Your task to perform on an android device: toggle improve location accuracy Image 0: 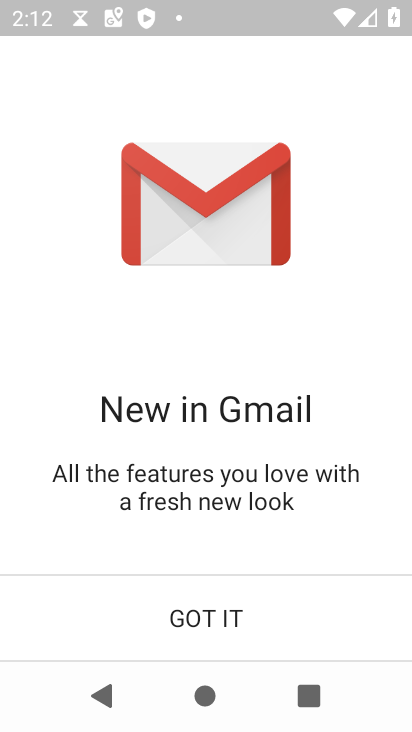
Step 0: press home button
Your task to perform on an android device: toggle improve location accuracy Image 1: 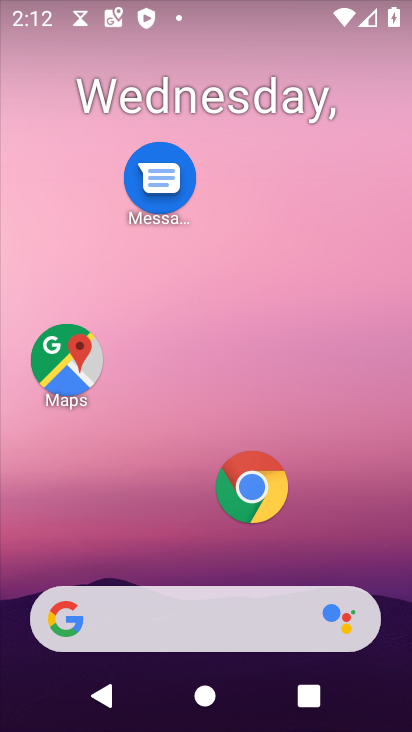
Step 1: drag from (194, 554) to (238, 148)
Your task to perform on an android device: toggle improve location accuracy Image 2: 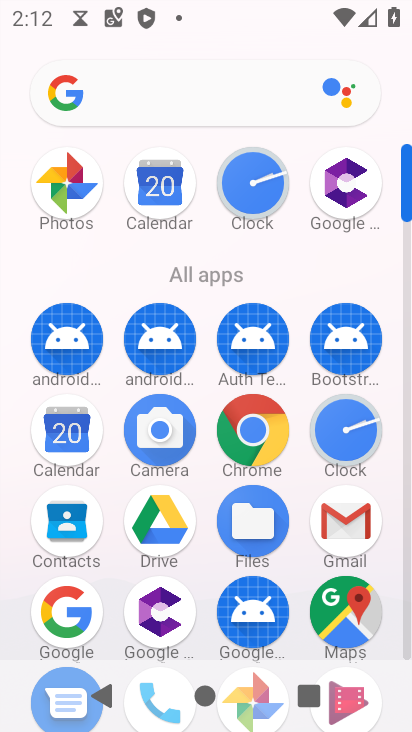
Step 2: drag from (200, 473) to (213, 154)
Your task to perform on an android device: toggle improve location accuracy Image 3: 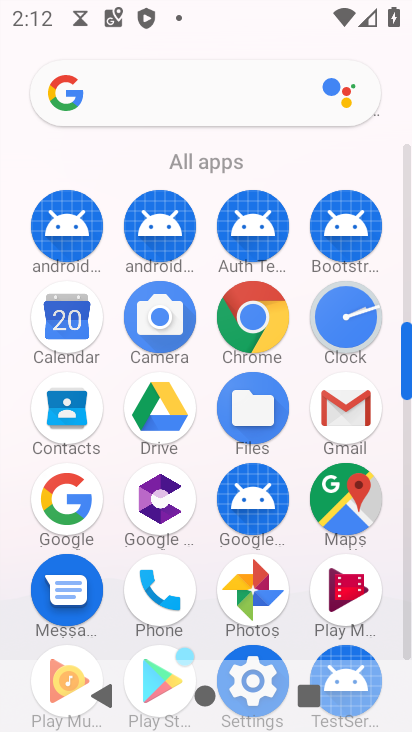
Step 3: drag from (201, 535) to (233, 232)
Your task to perform on an android device: toggle improve location accuracy Image 4: 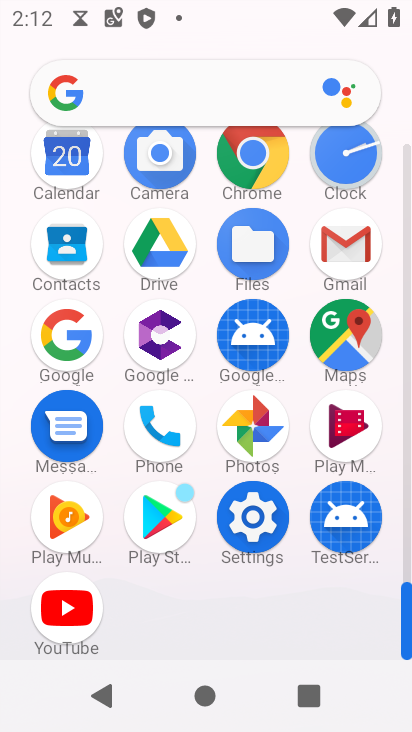
Step 4: click (246, 503)
Your task to perform on an android device: toggle improve location accuracy Image 5: 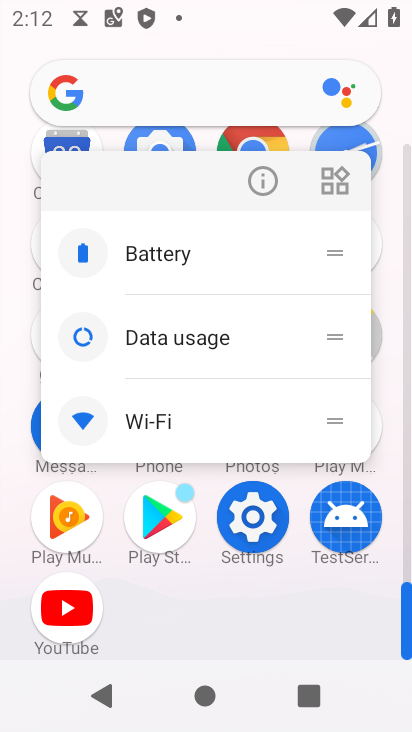
Step 5: click (248, 505)
Your task to perform on an android device: toggle improve location accuracy Image 6: 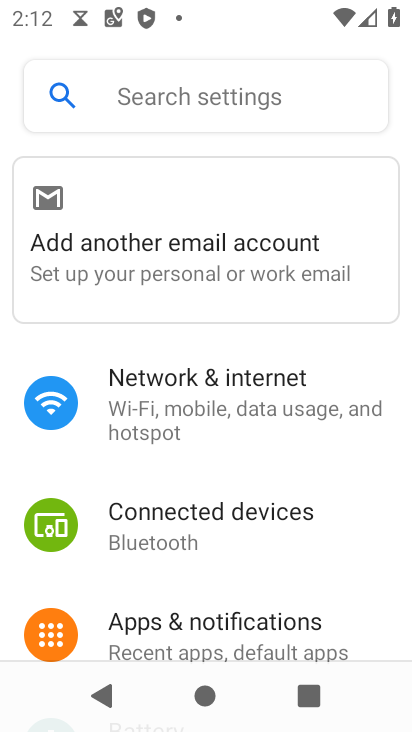
Step 6: drag from (230, 580) to (270, 257)
Your task to perform on an android device: toggle improve location accuracy Image 7: 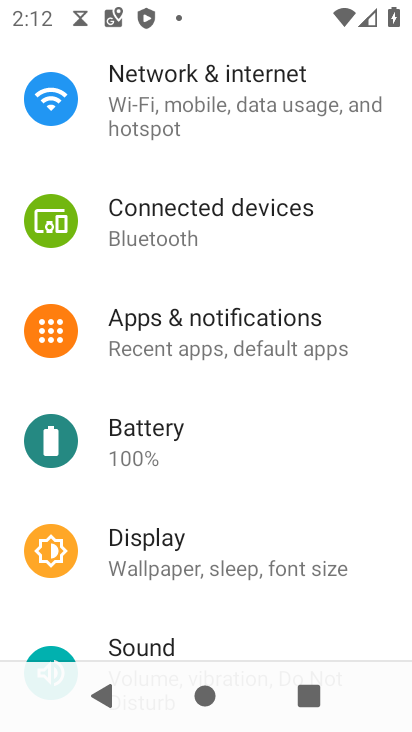
Step 7: drag from (242, 533) to (242, 266)
Your task to perform on an android device: toggle improve location accuracy Image 8: 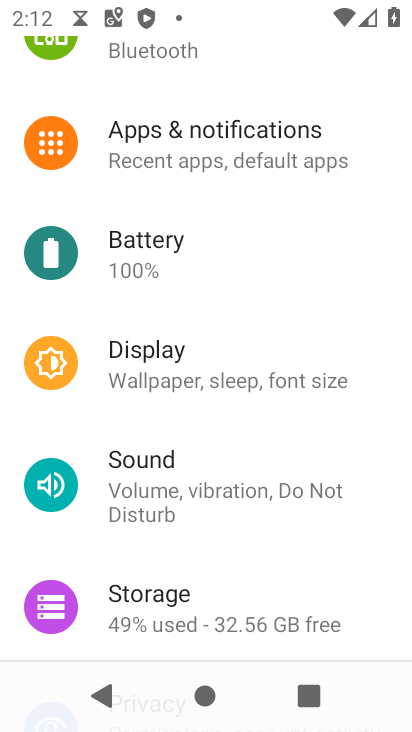
Step 8: drag from (204, 578) to (203, 267)
Your task to perform on an android device: toggle improve location accuracy Image 9: 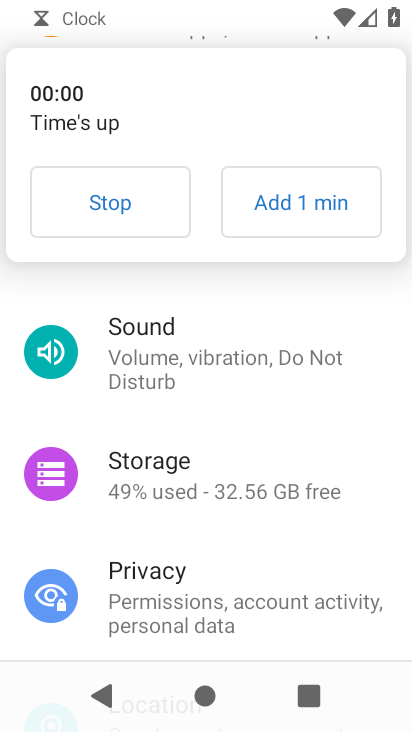
Step 9: drag from (197, 532) to (212, 261)
Your task to perform on an android device: toggle improve location accuracy Image 10: 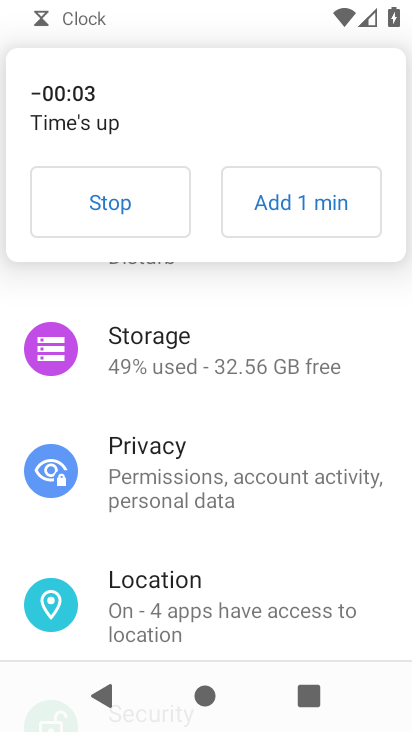
Step 10: click (176, 607)
Your task to perform on an android device: toggle improve location accuracy Image 11: 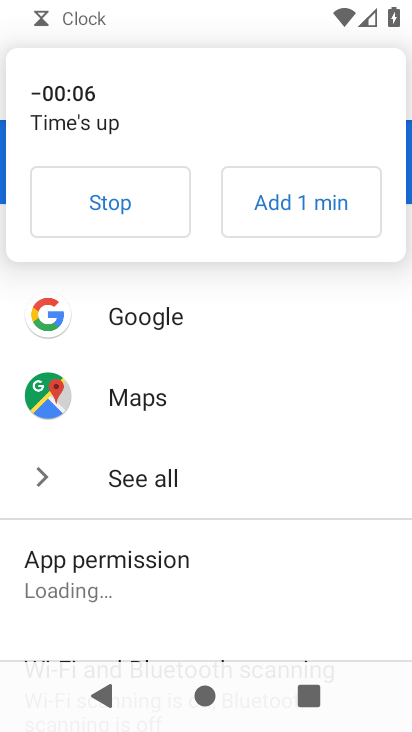
Step 11: click (263, 344)
Your task to perform on an android device: toggle improve location accuracy Image 12: 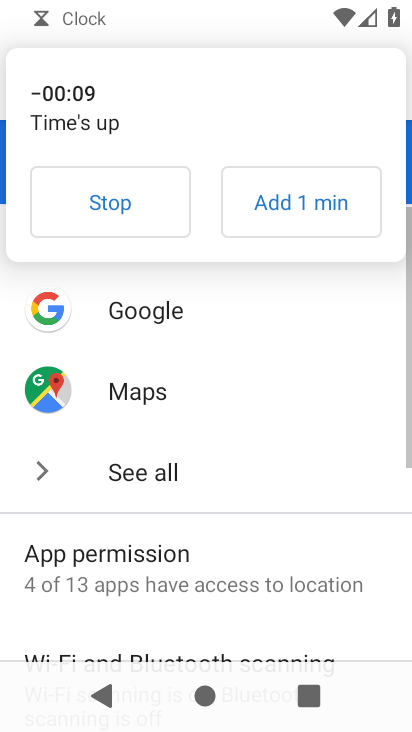
Step 12: drag from (274, 563) to (293, 320)
Your task to perform on an android device: toggle improve location accuracy Image 13: 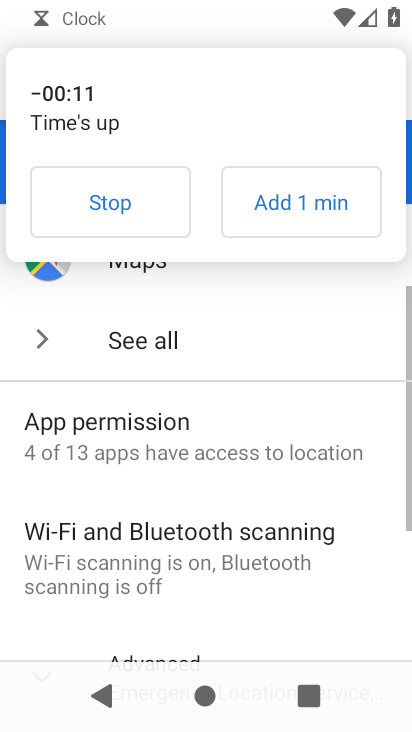
Step 13: drag from (252, 573) to (273, 313)
Your task to perform on an android device: toggle improve location accuracy Image 14: 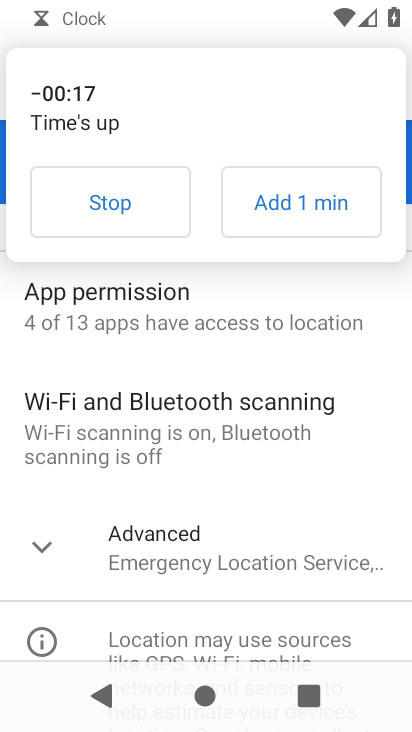
Step 14: drag from (246, 502) to (274, 288)
Your task to perform on an android device: toggle improve location accuracy Image 15: 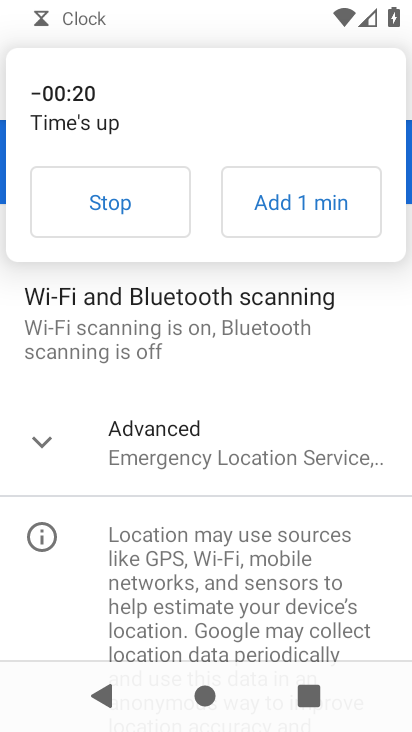
Step 15: click (195, 433)
Your task to perform on an android device: toggle improve location accuracy Image 16: 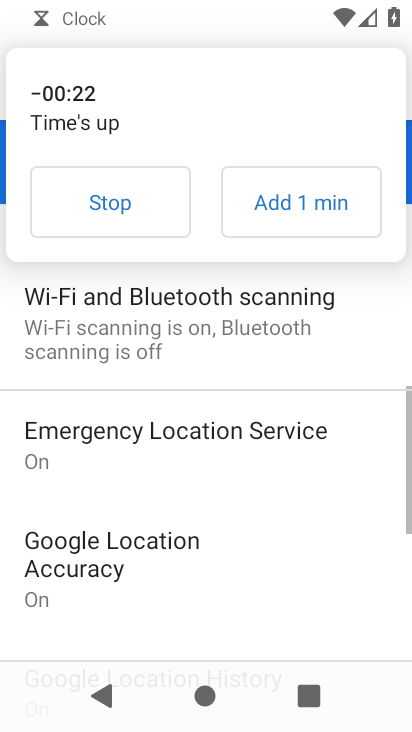
Step 16: drag from (223, 596) to (243, 383)
Your task to perform on an android device: toggle improve location accuracy Image 17: 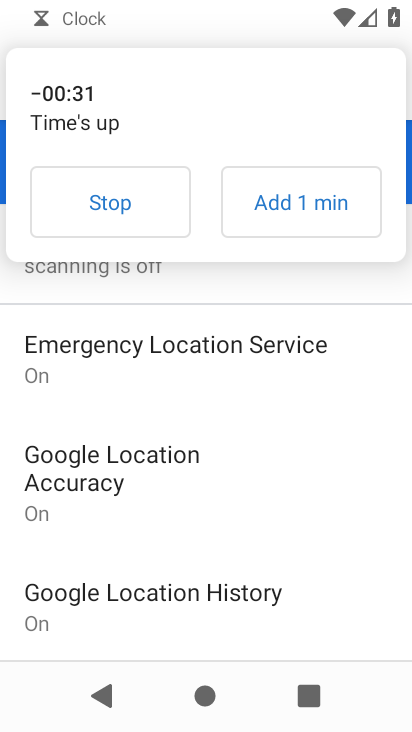
Step 17: click (178, 465)
Your task to perform on an android device: toggle improve location accuracy Image 18: 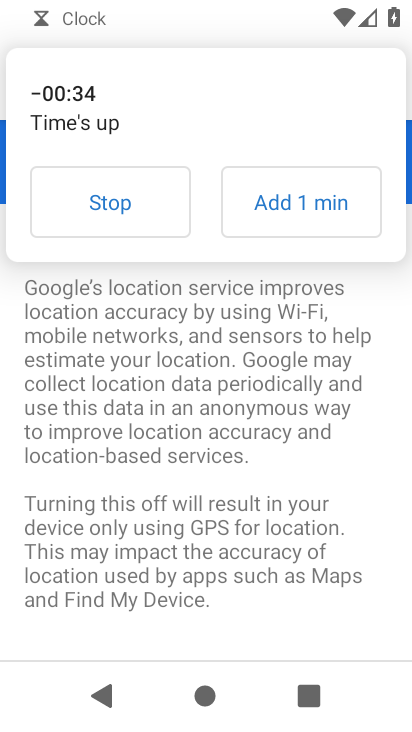
Step 18: click (117, 205)
Your task to perform on an android device: toggle improve location accuracy Image 19: 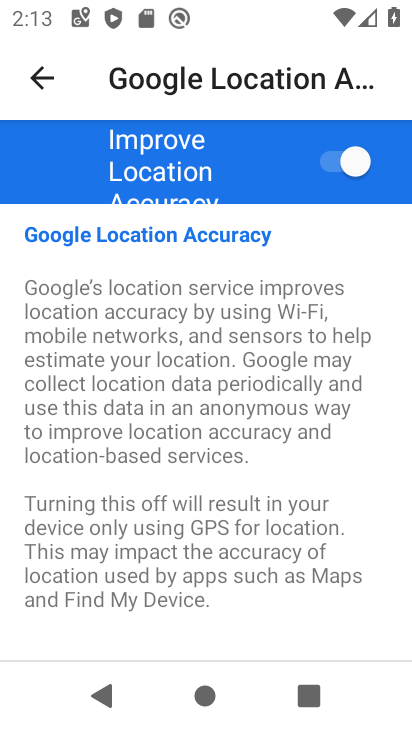
Step 19: click (325, 156)
Your task to perform on an android device: toggle improve location accuracy Image 20: 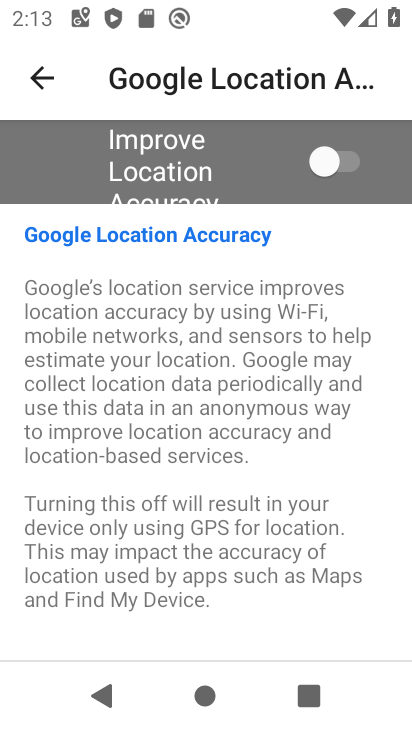
Step 20: task complete